Your task to perform on an android device: turn off smart reply in the gmail app Image 0: 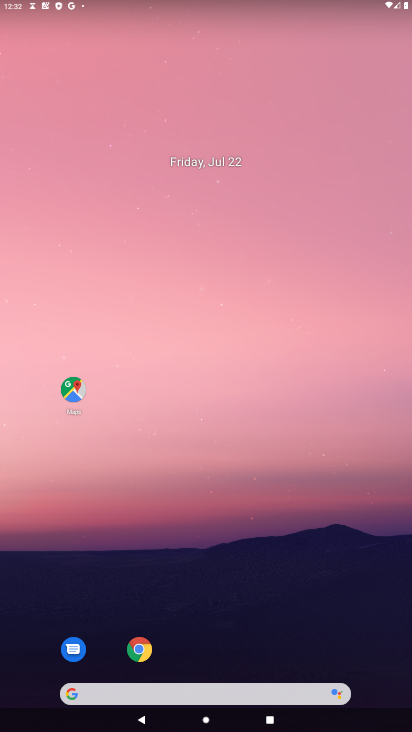
Step 0: drag from (273, 629) to (221, 447)
Your task to perform on an android device: turn off smart reply in the gmail app Image 1: 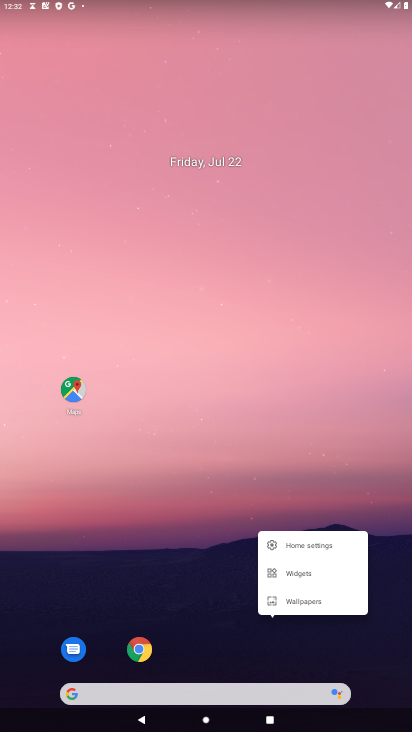
Step 1: drag from (263, 650) to (147, 2)
Your task to perform on an android device: turn off smart reply in the gmail app Image 2: 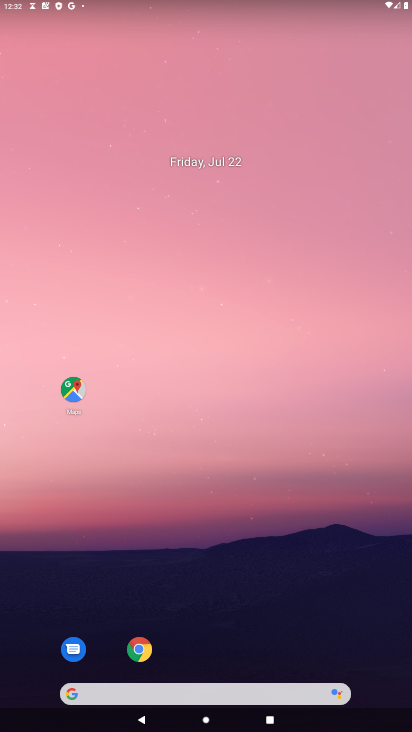
Step 2: drag from (341, 521) to (252, 106)
Your task to perform on an android device: turn off smart reply in the gmail app Image 3: 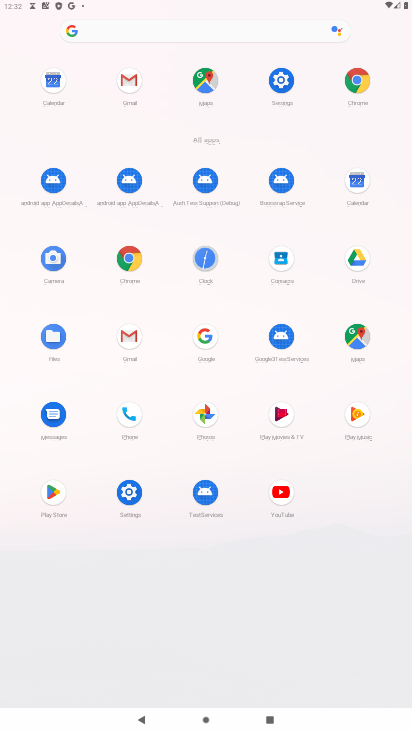
Step 3: click (126, 499)
Your task to perform on an android device: turn off smart reply in the gmail app Image 4: 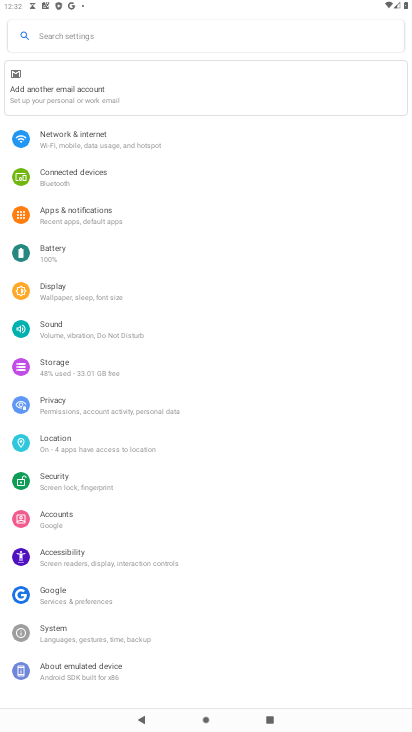
Step 4: press home button
Your task to perform on an android device: turn off smart reply in the gmail app Image 5: 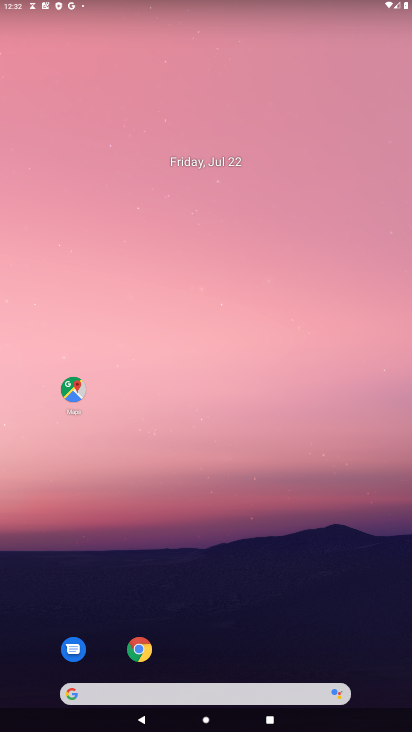
Step 5: drag from (250, 581) to (114, 10)
Your task to perform on an android device: turn off smart reply in the gmail app Image 6: 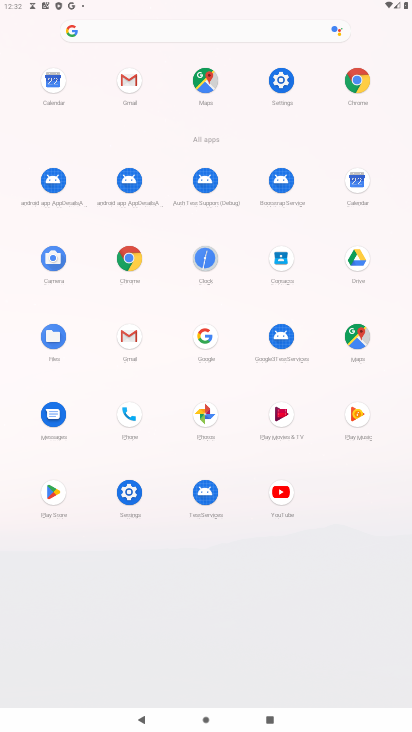
Step 6: click (126, 330)
Your task to perform on an android device: turn off smart reply in the gmail app Image 7: 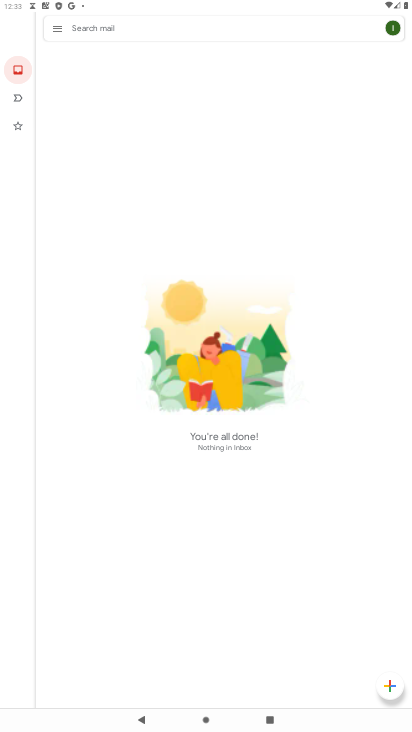
Step 7: click (55, 34)
Your task to perform on an android device: turn off smart reply in the gmail app Image 8: 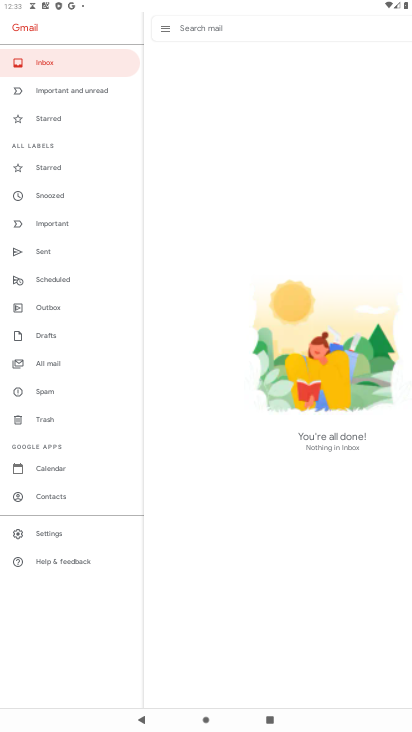
Step 8: click (83, 533)
Your task to perform on an android device: turn off smart reply in the gmail app Image 9: 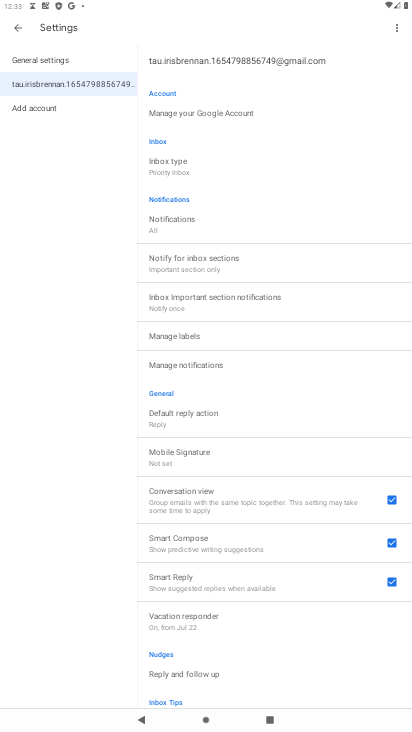
Step 9: click (397, 583)
Your task to perform on an android device: turn off smart reply in the gmail app Image 10: 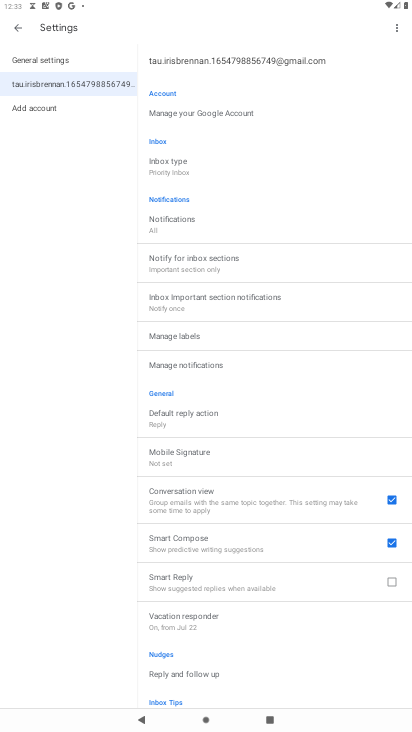
Step 10: task complete